Your task to perform on an android device: What's the weather going to be tomorrow? Image 0: 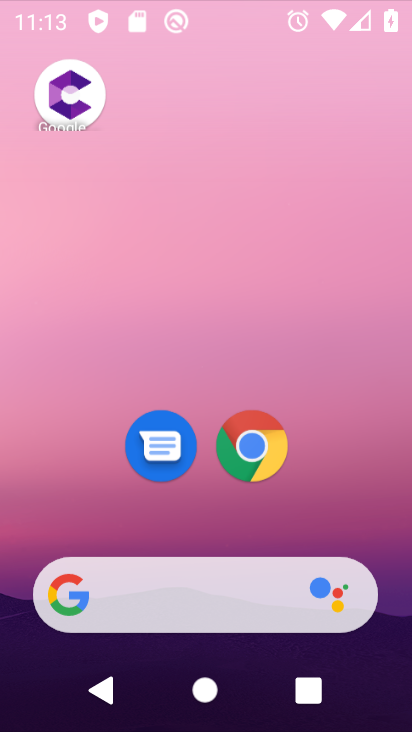
Step 0: press home button
Your task to perform on an android device: What's the weather going to be tomorrow? Image 1: 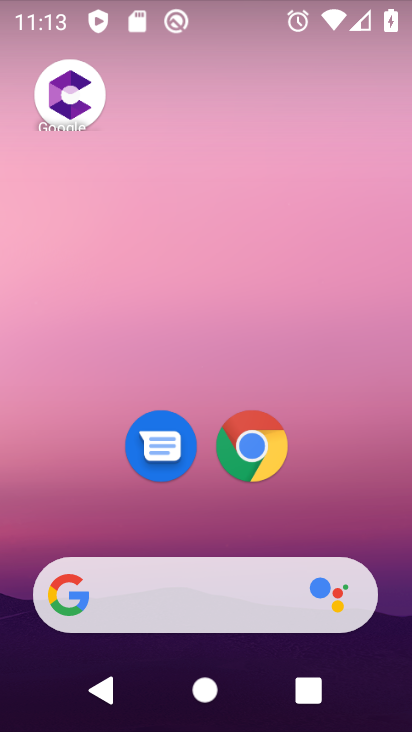
Step 1: drag from (216, 538) to (237, 0)
Your task to perform on an android device: What's the weather going to be tomorrow? Image 2: 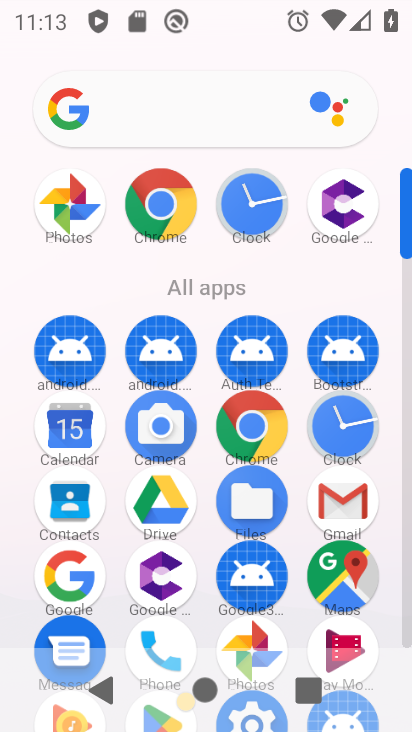
Step 2: click (186, 108)
Your task to perform on an android device: What's the weather going to be tomorrow? Image 3: 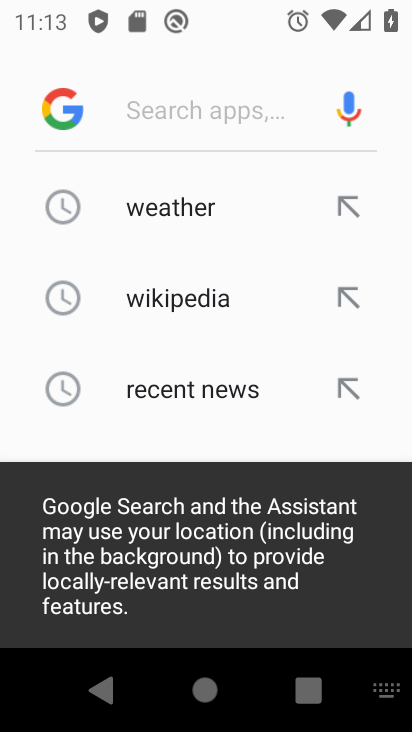
Step 3: click (210, 212)
Your task to perform on an android device: What's the weather going to be tomorrow? Image 4: 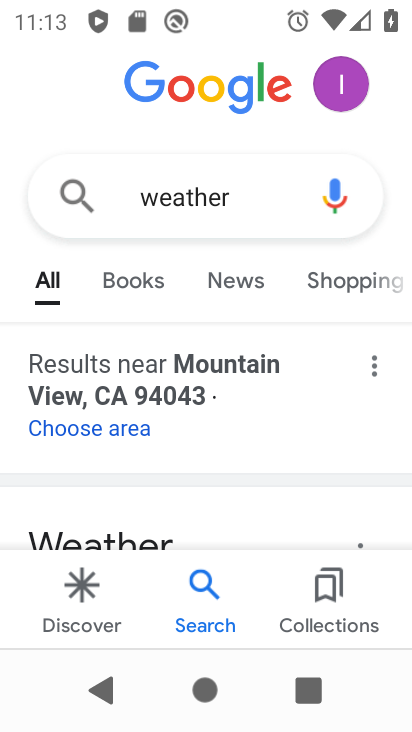
Step 4: drag from (210, 458) to (241, 237)
Your task to perform on an android device: What's the weather going to be tomorrow? Image 5: 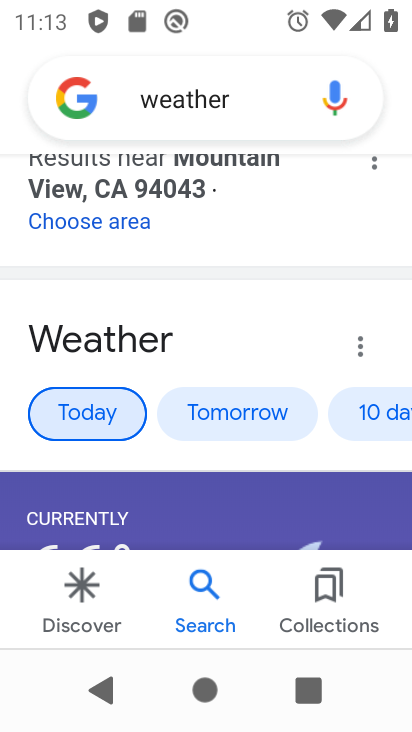
Step 5: click (254, 406)
Your task to perform on an android device: What's the weather going to be tomorrow? Image 6: 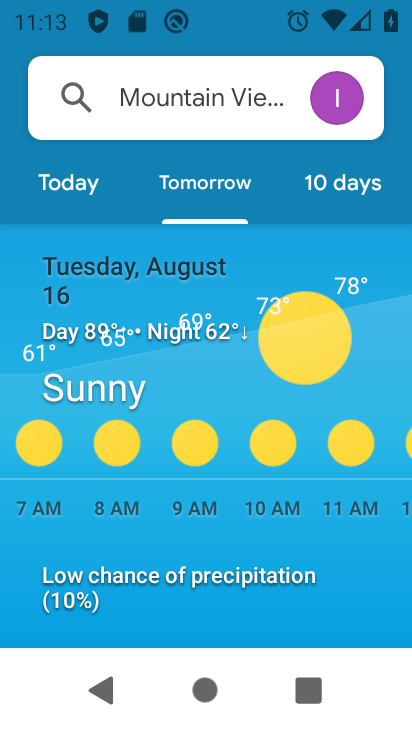
Step 6: task complete